Your task to perform on an android device: turn off wifi Image 0: 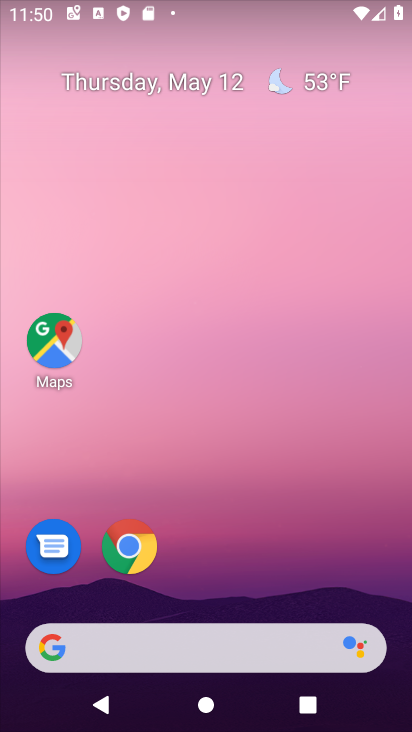
Step 0: drag from (254, 660) to (191, 283)
Your task to perform on an android device: turn off wifi Image 1: 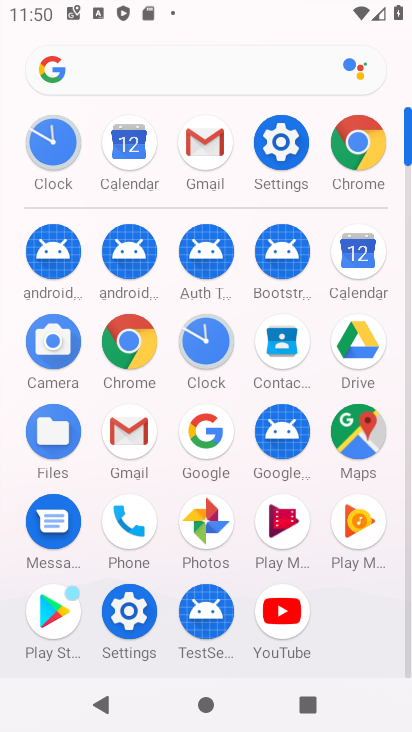
Step 1: click (290, 136)
Your task to perform on an android device: turn off wifi Image 2: 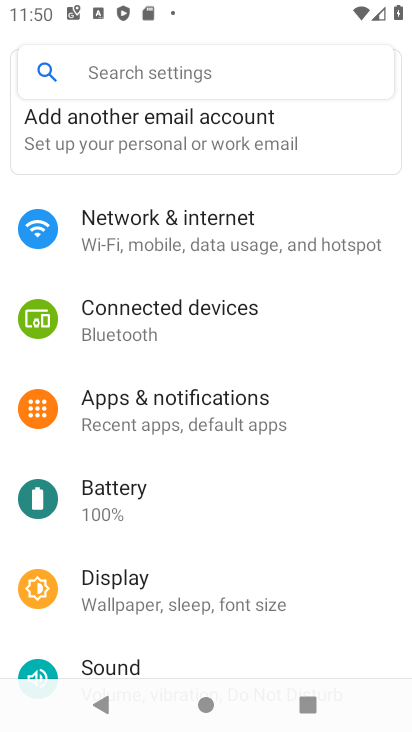
Step 2: click (222, 214)
Your task to perform on an android device: turn off wifi Image 3: 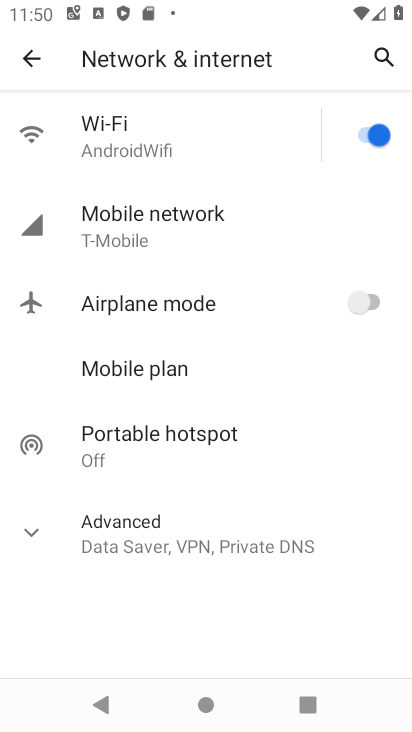
Step 3: click (148, 155)
Your task to perform on an android device: turn off wifi Image 4: 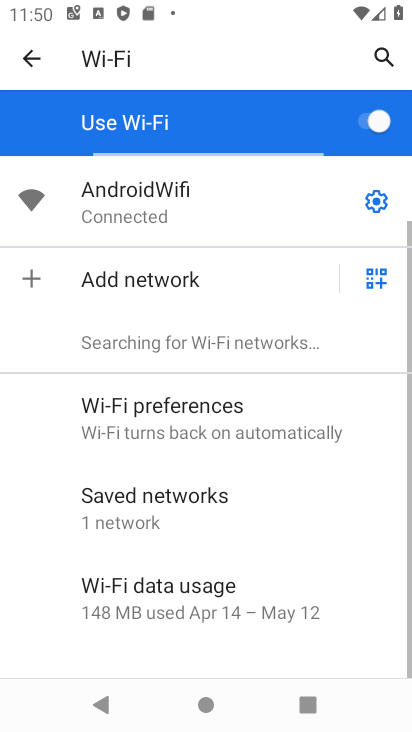
Step 4: click (365, 128)
Your task to perform on an android device: turn off wifi Image 5: 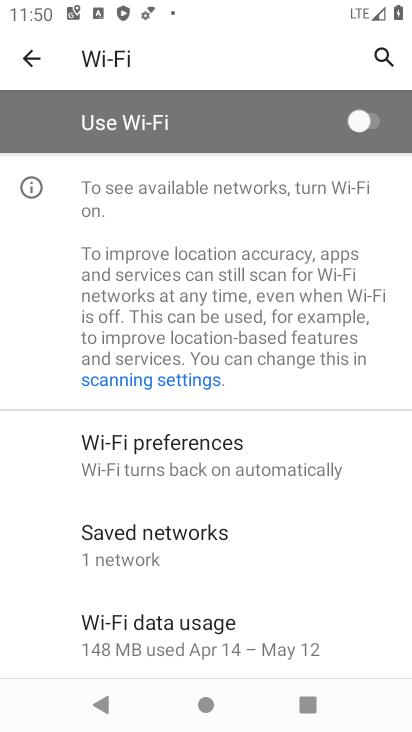
Step 5: task complete